Your task to perform on an android device: read, delete, or share a saved page in the chrome app Image 0: 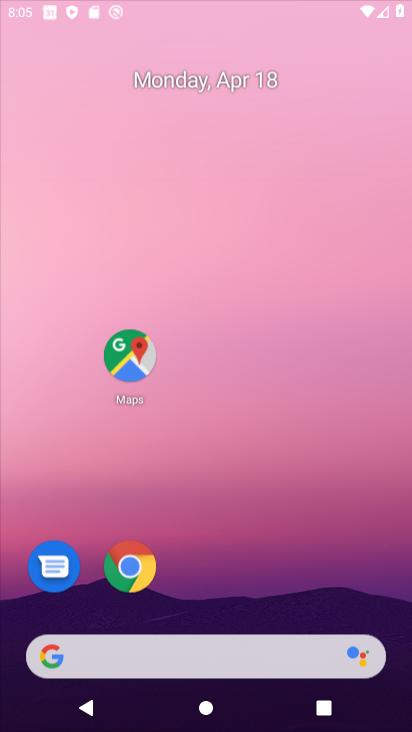
Step 0: click (188, 352)
Your task to perform on an android device: read, delete, or share a saved page in the chrome app Image 1: 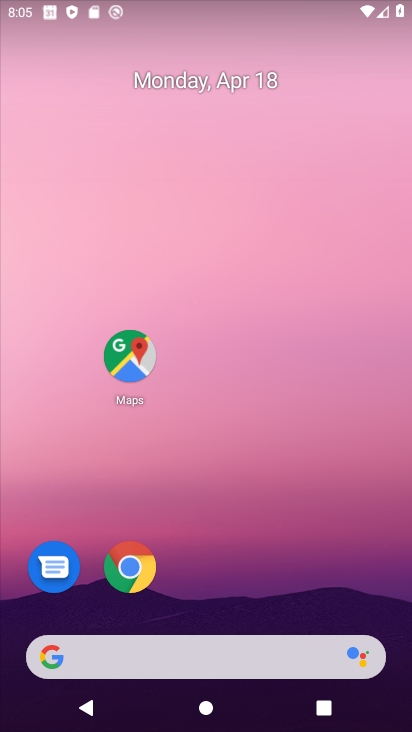
Step 1: drag from (251, 673) to (307, 233)
Your task to perform on an android device: read, delete, or share a saved page in the chrome app Image 2: 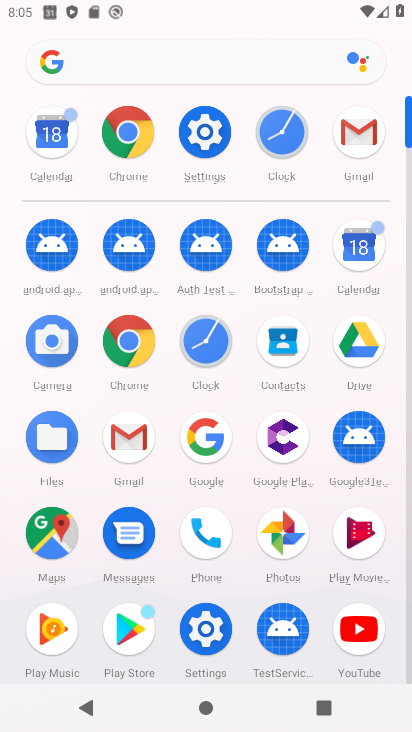
Step 2: click (141, 136)
Your task to perform on an android device: read, delete, or share a saved page in the chrome app Image 3: 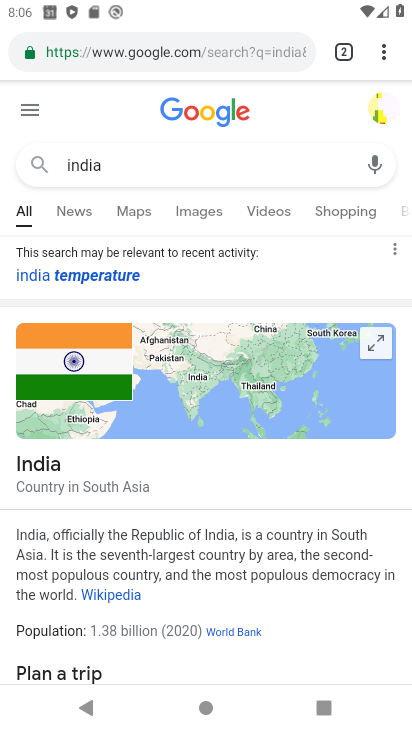
Step 3: click (380, 58)
Your task to perform on an android device: read, delete, or share a saved page in the chrome app Image 4: 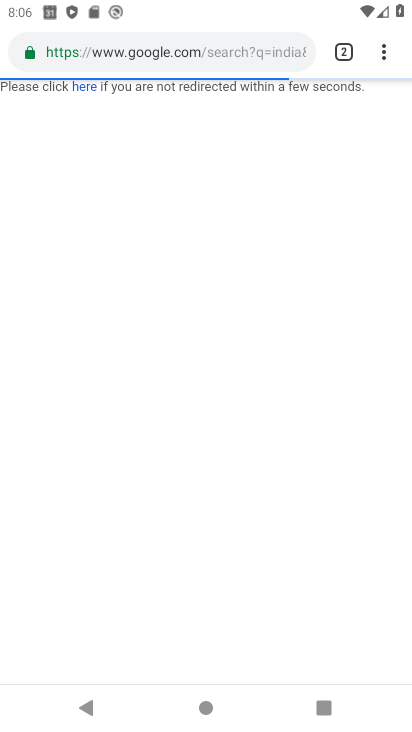
Step 4: click (380, 58)
Your task to perform on an android device: read, delete, or share a saved page in the chrome app Image 5: 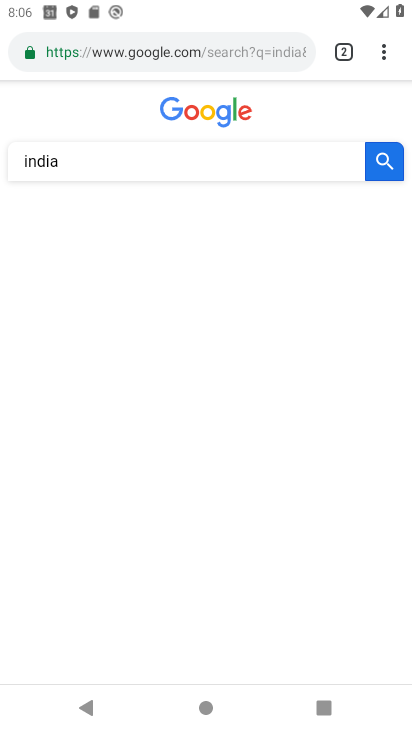
Step 5: click (380, 58)
Your task to perform on an android device: read, delete, or share a saved page in the chrome app Image 6: 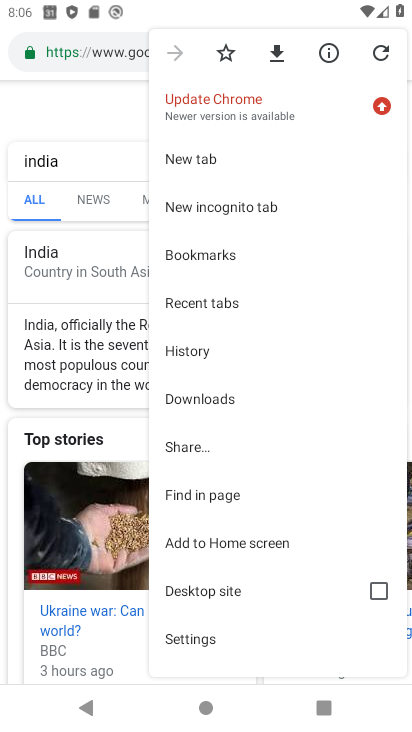
Step 6: click (197, 450)
Your task to perform on an android device: read, delete, or share a saved page in the chrome app Image 7: 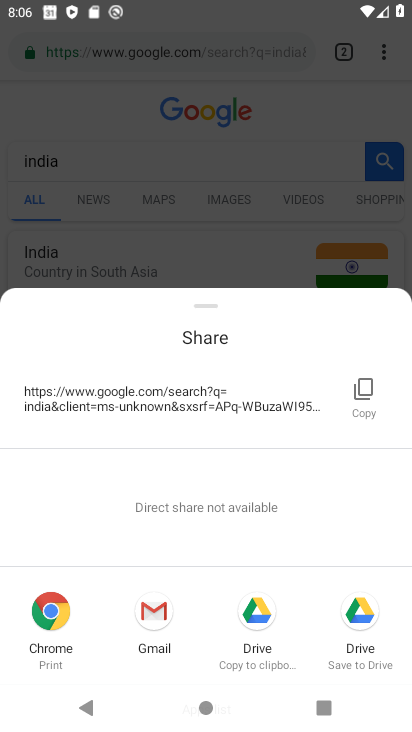
Step 7: click (47, 625)
Your task to perform on an android device: read, delete, or share a saved page in the chrome app Image 8: 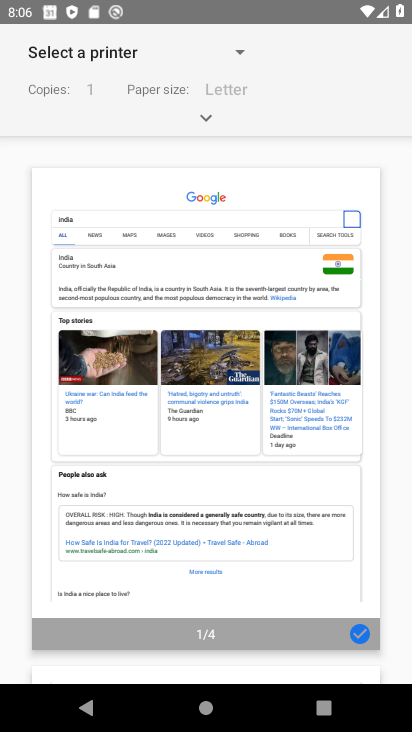
Step 8: task complete